Your task to perform on an android device: delete a single message in the gmail app Image 0: 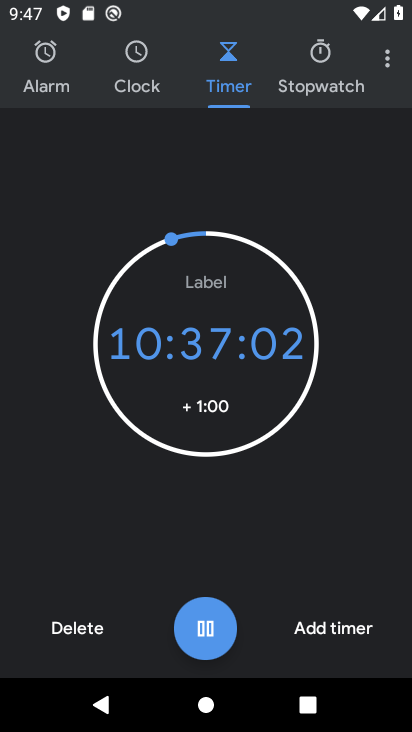
Step 0: press home button
Your task to perform on an android device: delete a single message in the gmail app Image 1: 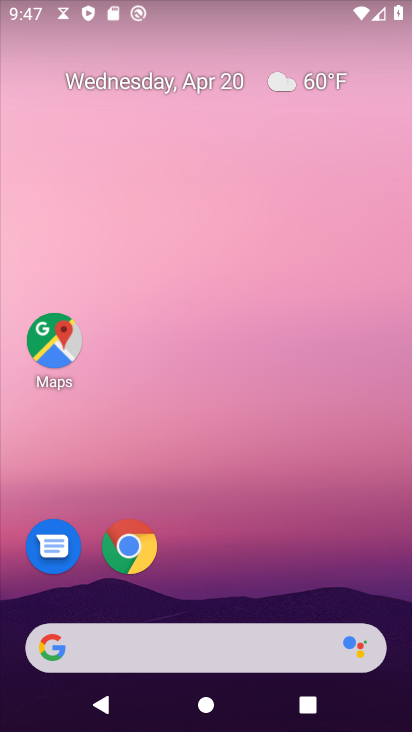
Step 1: drag from (247, 575) to (235, 55)
Your task to perform on an android device: delete a single message in the gmail app Image 2: 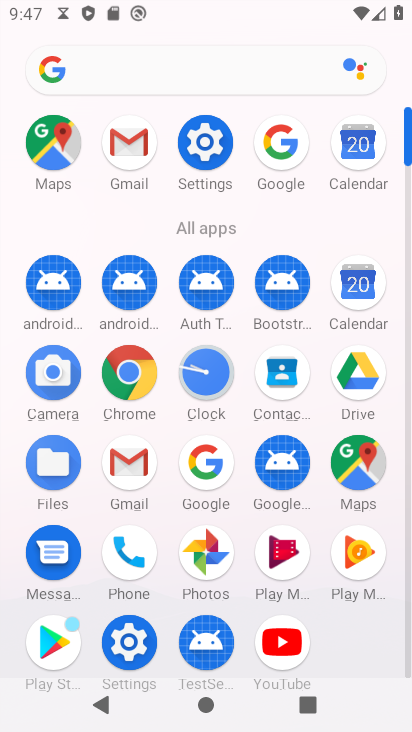
Step 2: click (132, 476)
Your task to perform on an android device: delete a single message in the gmail app Image 3: 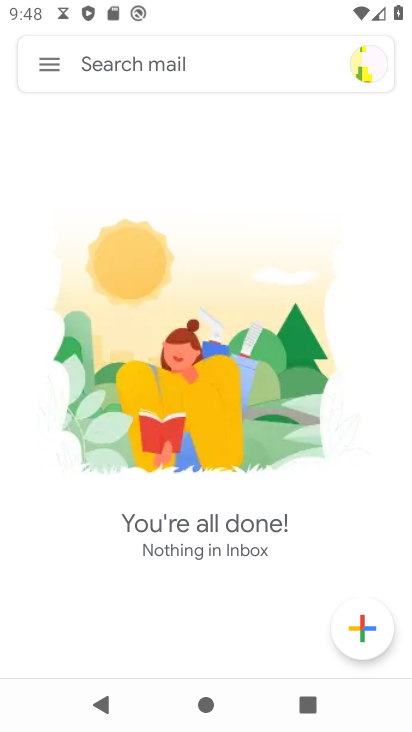
Step 3: click (47, 63)
Your task to perform on an android device: delete a single message in the gmail app Image 4: 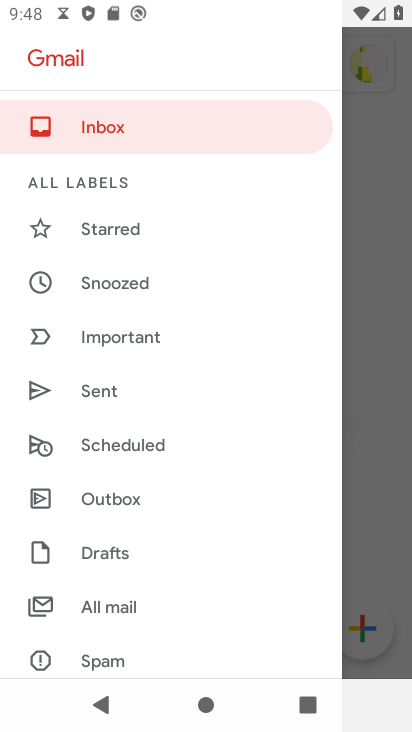
Step 4: click (119, 614)
Your task to perform on an android device: delete a single message in the gmail app Image 5: 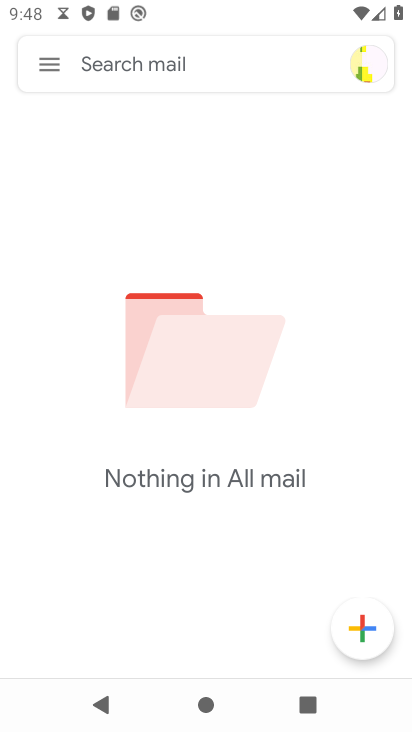
Step 5: task complete